Your task to perform on an android device: turn on sleep mode Image 0: 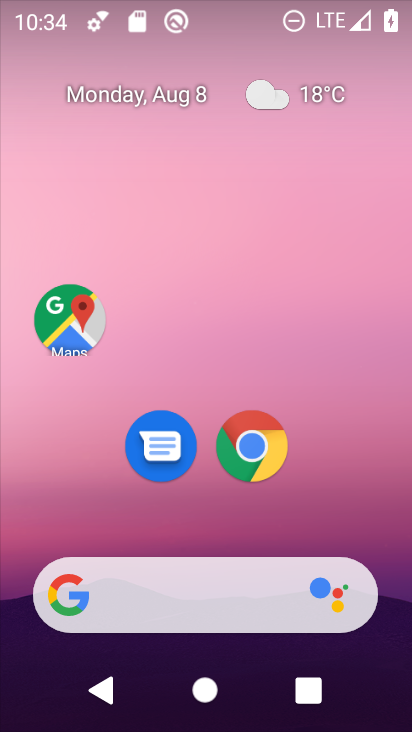
Step 0: drag from (402, 631) to (358, 166)
Your task to perform on an android device: turn on sleep mode Image 1: 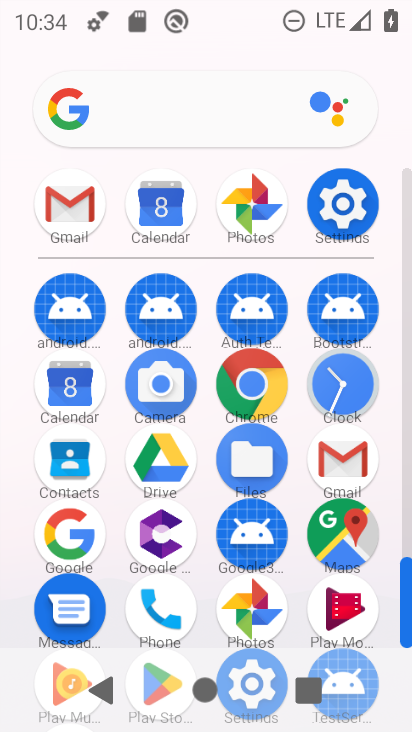
Step 1: drag from (406, 543) to (405, 500)
Your task to perform on an android device: turn on sleep mode Image 2: 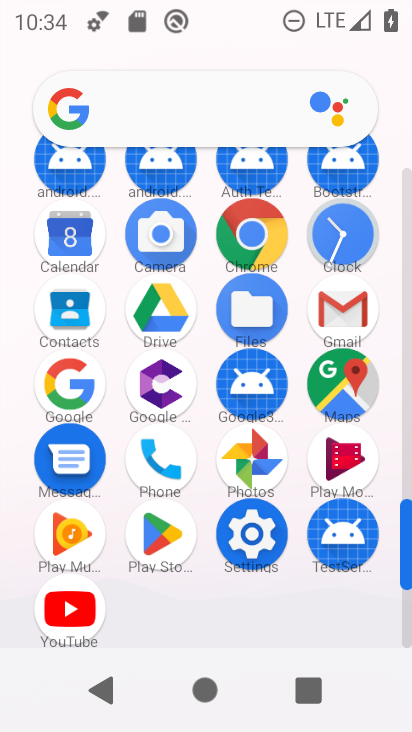
Step 2: click (249, 533)
Your task to perform on an android device: turn on sleep mode Image 3: 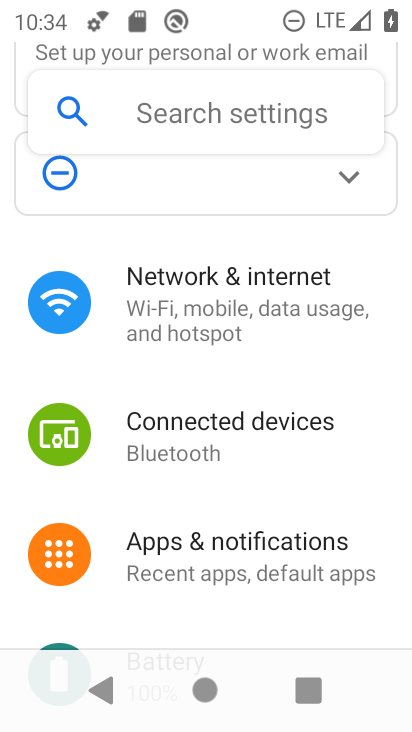
Step 3: drag from (309, 600) to (281, 298)
Your task to perform on an android device: turn on sleep mode Image 4: 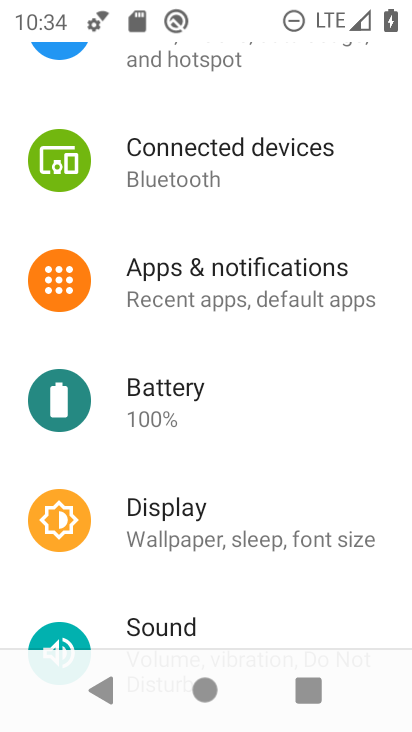
Step 4: click (177, 523)
Your task to perform on an android device: turn on sleep mode Image 5: 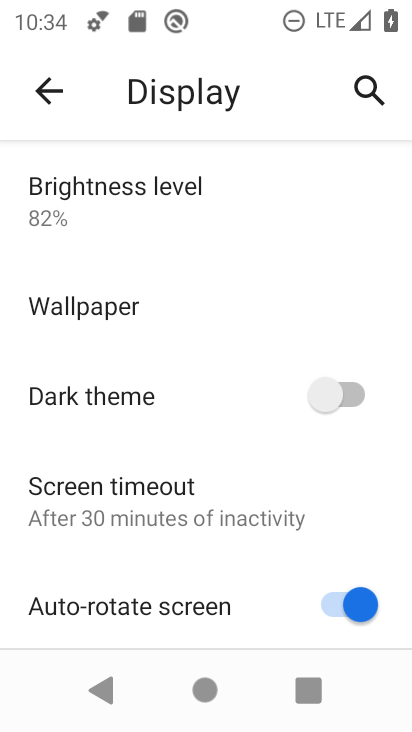
Step 5: drag from (270, 493) to (257, 205)
Your task to perform on an android device: turn on sleep mode Image 6: 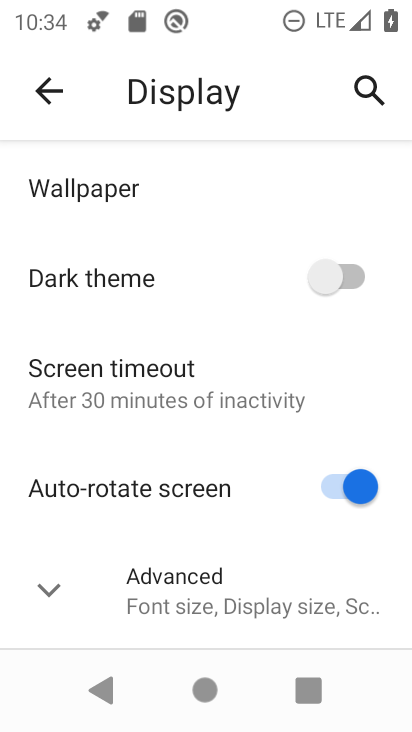
Step 6: click (42, 594)
Your task to perform on an android device: turn on sleep mode Image 7: 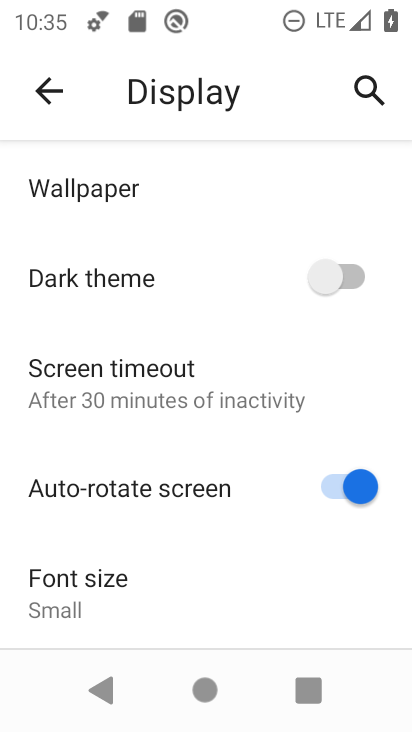
Step 7: task complete